Your task to perform on an android device: Show me popular games on the Play Store Image 0: 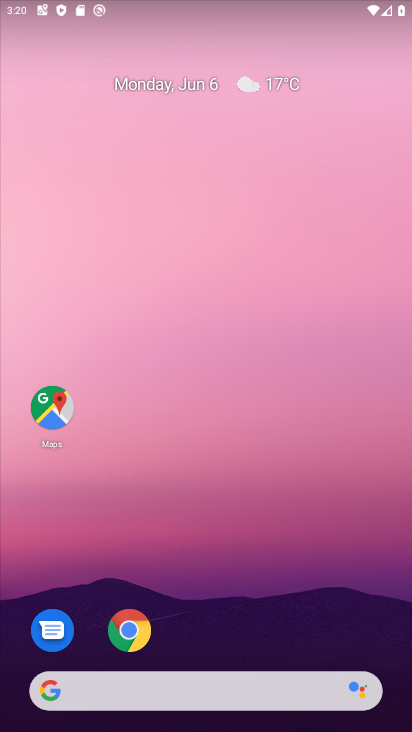
Step 0: drag from (236, 577) to (271, 157)
Your task to perform on an android device: Show me popular games on the Play Store Image 1: 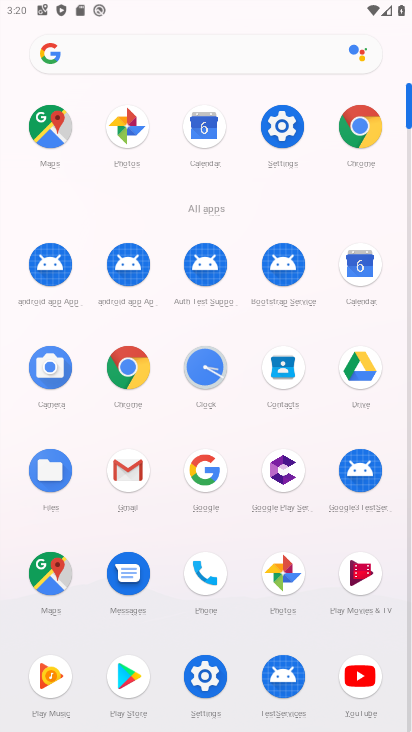
Step 1: click (127, 667)
Your task to perform on an android device: Show me popular games on the Play Store Image 2: 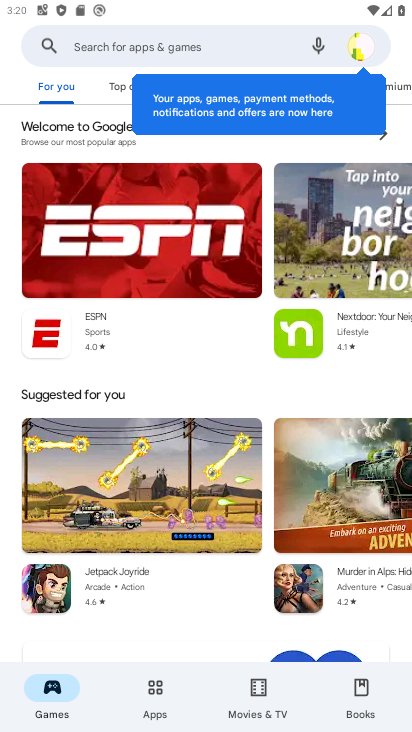
Step 2: click (59, 683)
Your task to perform on an android device: Show me popular games on the Play Store Image 3: 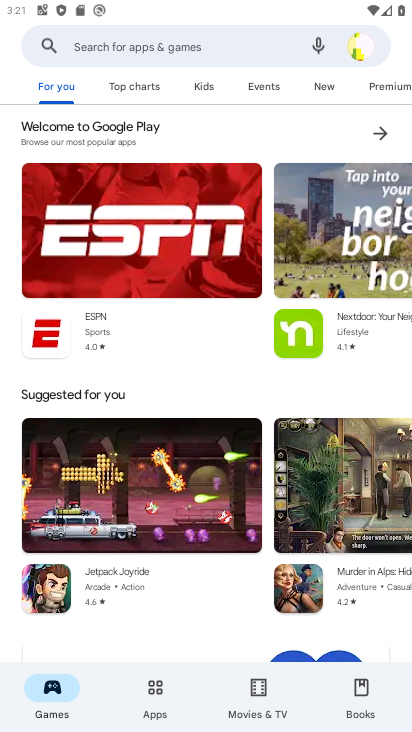
Step 3: drag from (236, 467) to (241, 88)
Your task to perform on an android device: Show me popular games on the Play Store Image 4: 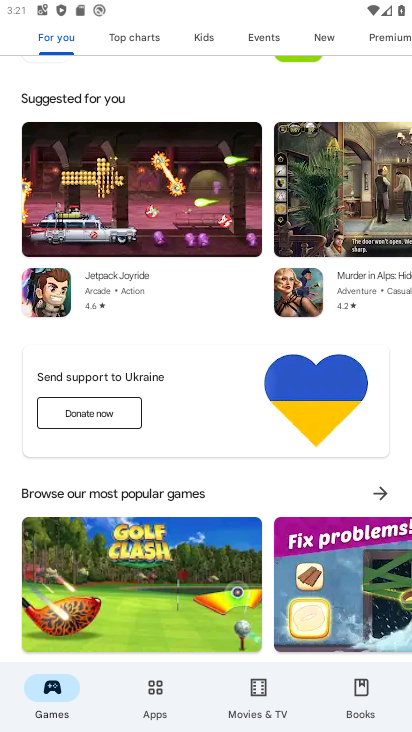
Step 4: drag from (178, 548) to (255, 377)
Your task to perform on an android device: Show me popular games on the Play Store Image 5: 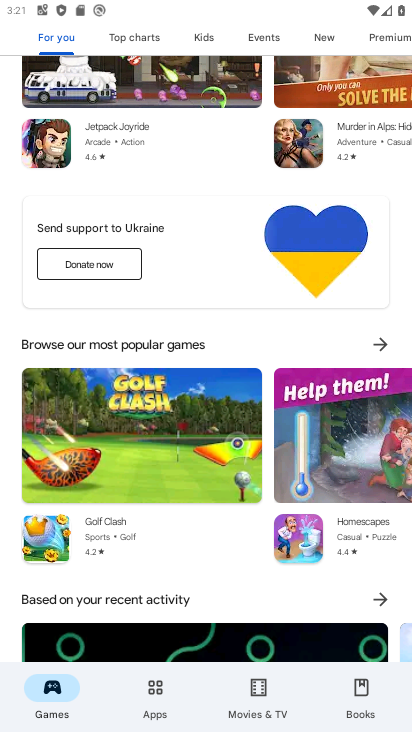
Step 5: click (376, 344)
Your task to perform on an android device: Show me popular games on the Play Store Image 6: 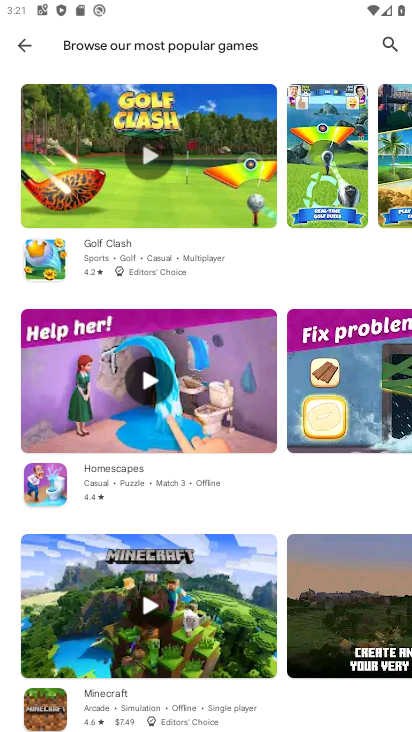
Step 6: task complete